Your task to perform on an android device: turn notification dots on Image 0: 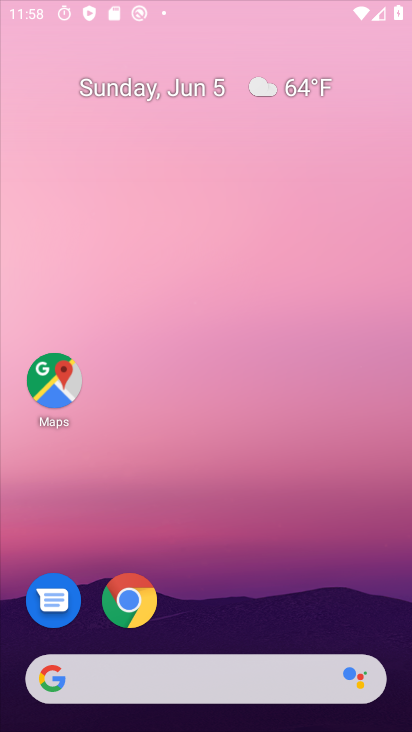
Step 0: drag from (278, 676) to (206, 159)
Your task to perform on an android device: turn notification dots on Image 1: 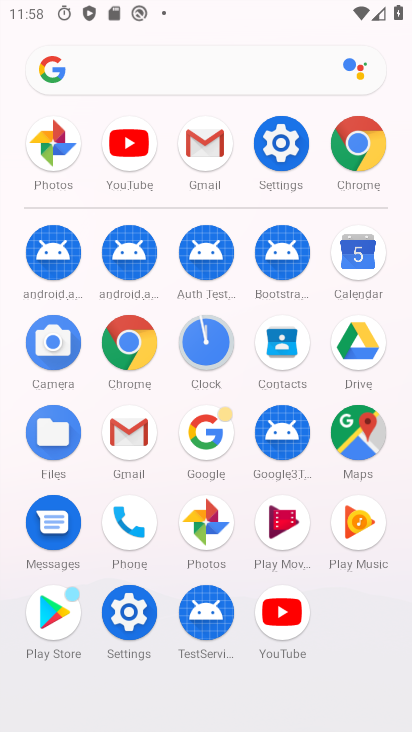
Step 1: click (298, 148)
Your task to perform on an android device: turn notification dots on Image 2: 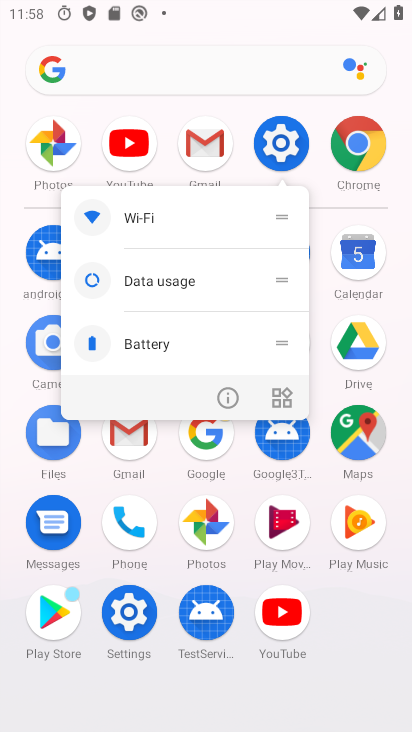
Step 2: click (290, 154)
Your task to perform on an android device: turn notification dots on Image 3: 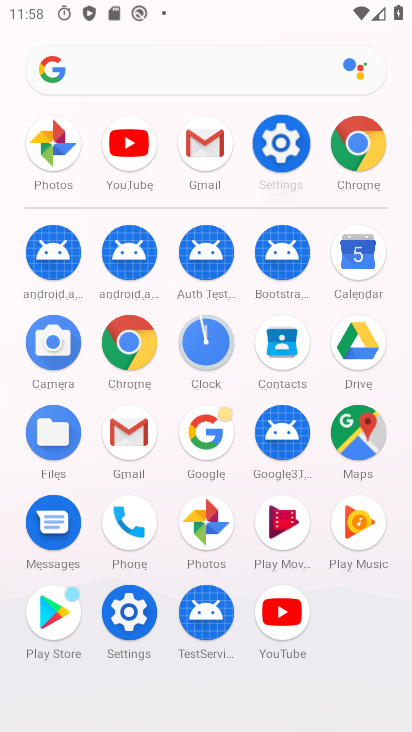
Step 3: click (271, 177)
Your task to perform on an android device: turn notification dots on Image 4: 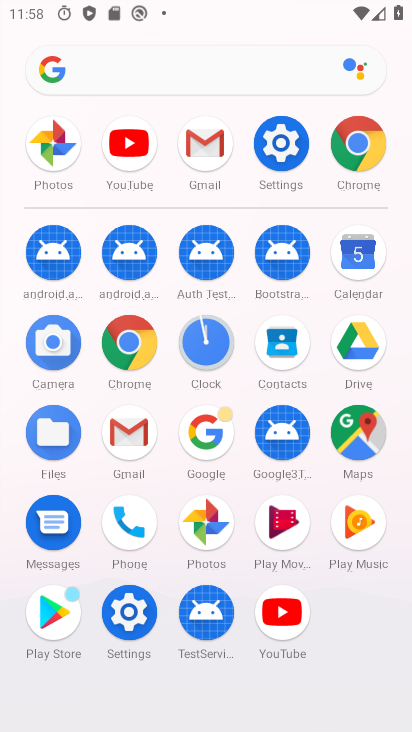
Step 4: click (275, 137)
Your task to perform on an android device: turn notification dots on Image 5: 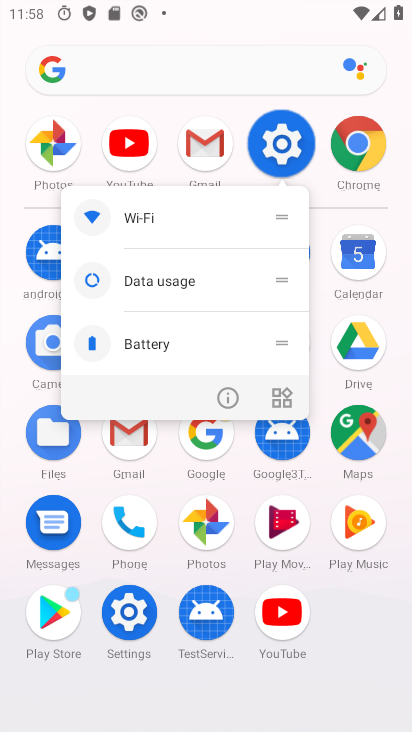
Step 5: click (268, 152)
Your task to perform on an android device: turn notification dots on Image 6: 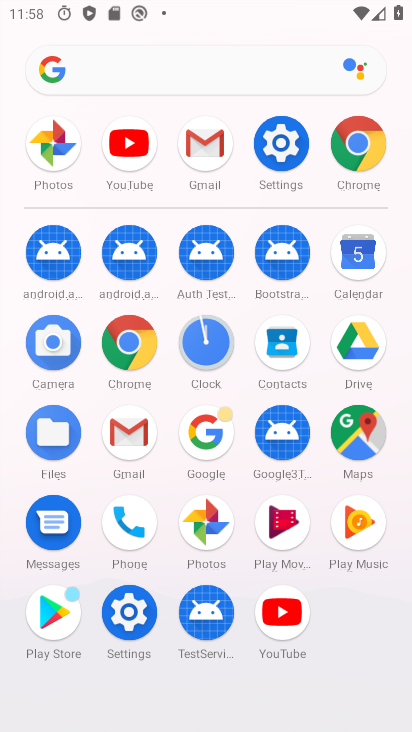
Step 6: click (267, 156)
Your task to perform on an android device: turn notification dots on Image 7: 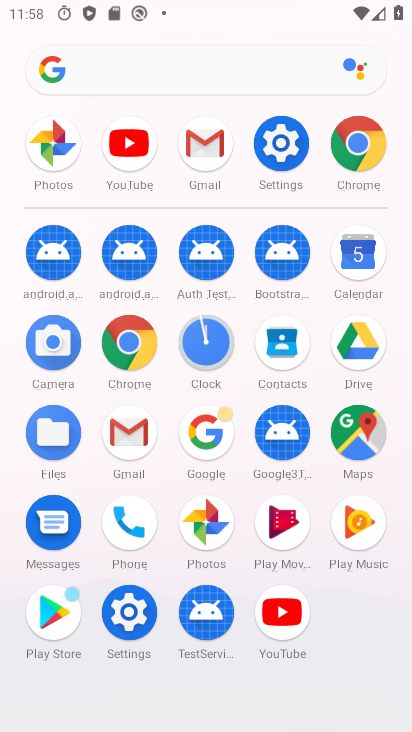
Step 7: click (267, 156)
Your task to perform on an android device: turn notification dots on Image 8: 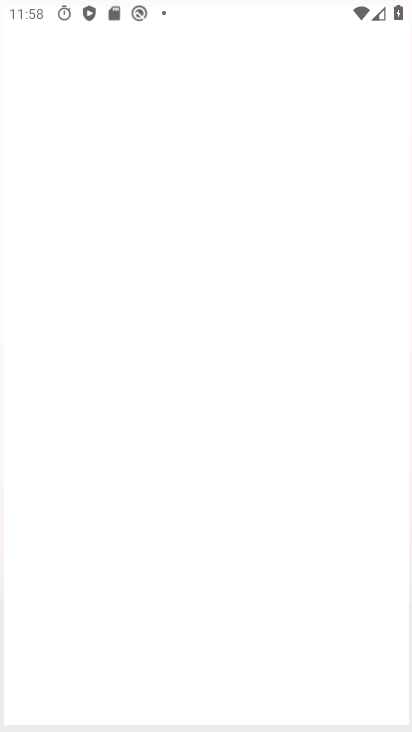
Step 8: click (267, 156)
Your task to perform on an android device: turn notification dots on Image 9: 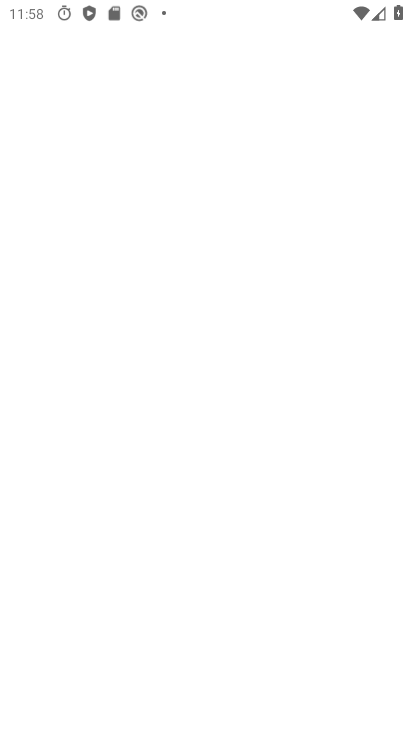
Step 9: click (267, 156)
Your task to perform on an android device: turn notification dots on Image 10: 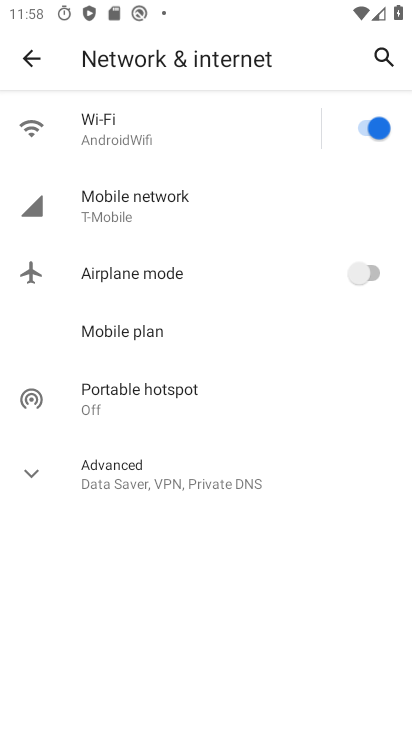
Step 10: click (33, 61)
Your task to perform on an android device: turn notification dots on Image 11: 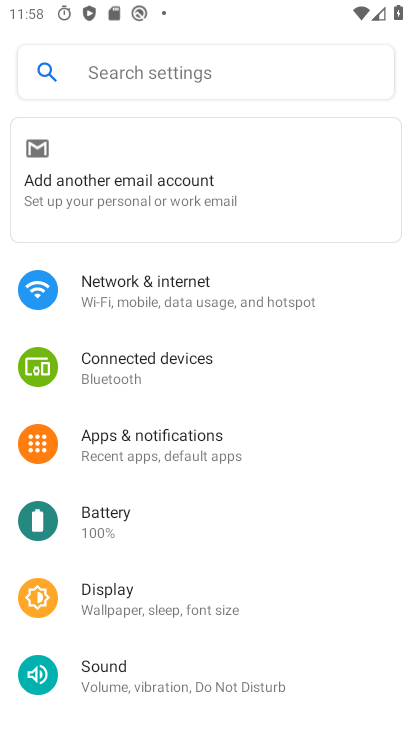
Step 11: click (150, 438)
Your task to perform on an android device: turn notification dots on Image 12: 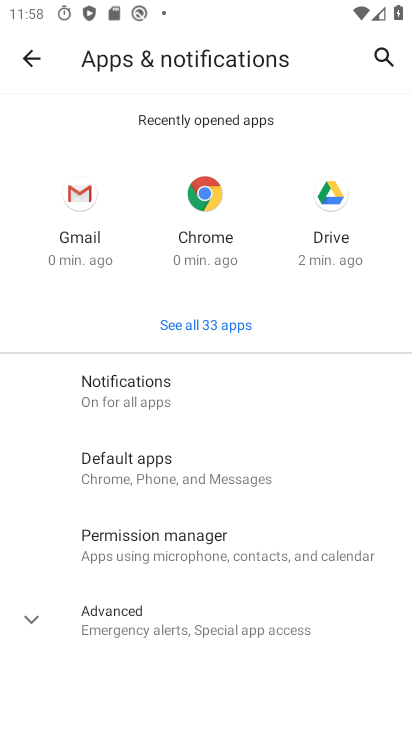
Step 12: click (129, 386)
Your task to perform on an android device: turn notification dots on Image 13: 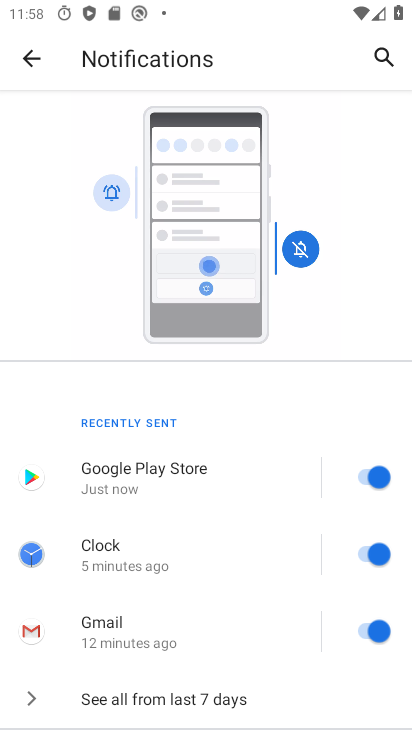
Step 13: drag from (232, 582) to (212, 208)
Your task to perform on an android device: turn notification dots on Image 14: 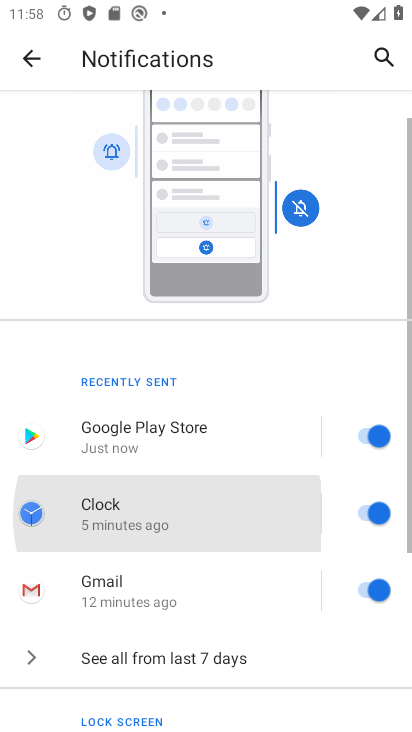
Step 14: drag from (232, 508) to (234, 96)
Your task to perform on an android device: turn notification dots on Image 15: 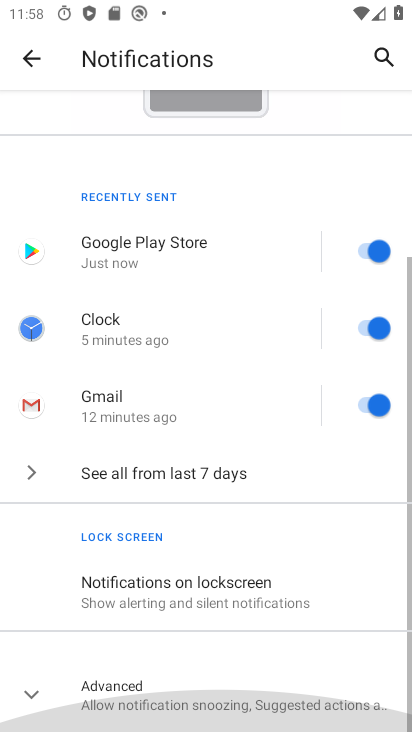
Step 15: drag from (198, 422) to (198, 161)
Your task to perform on an android device: turn notification dots on Image 16: 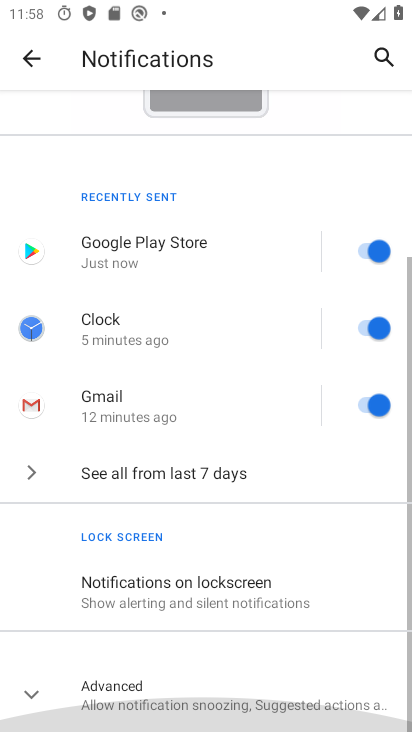
Step 16: drag from (203, 507) to (203, 212)
Your task to perform on an android device: turn notification dots on Image 17: 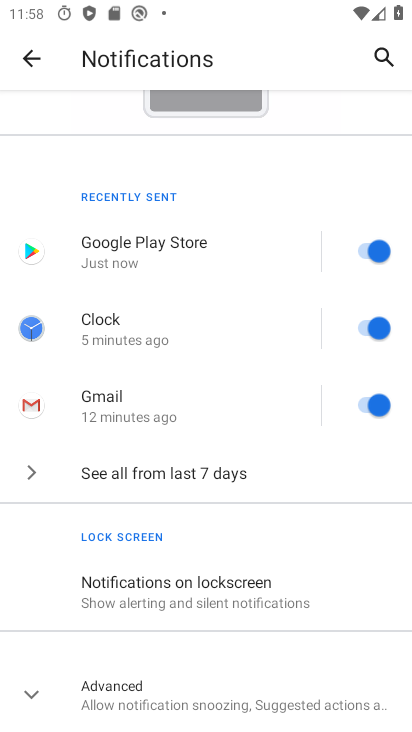
Step 17: click (137, 691)
Your task to perform on an android device: turn notification dots on Image 18: 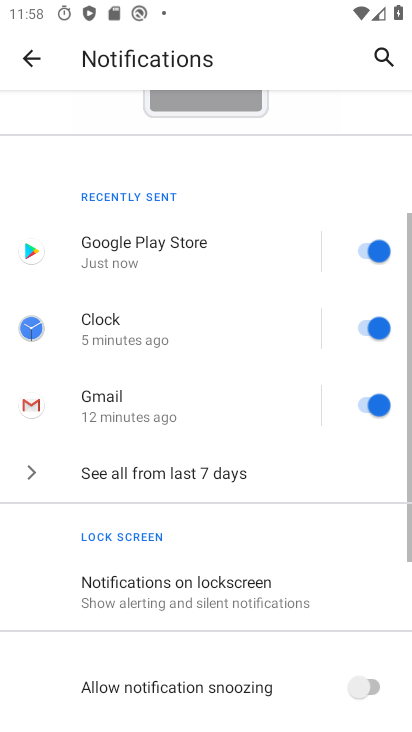
Step 18: task complete